Your task to perform on an android device: check storage Image 0: 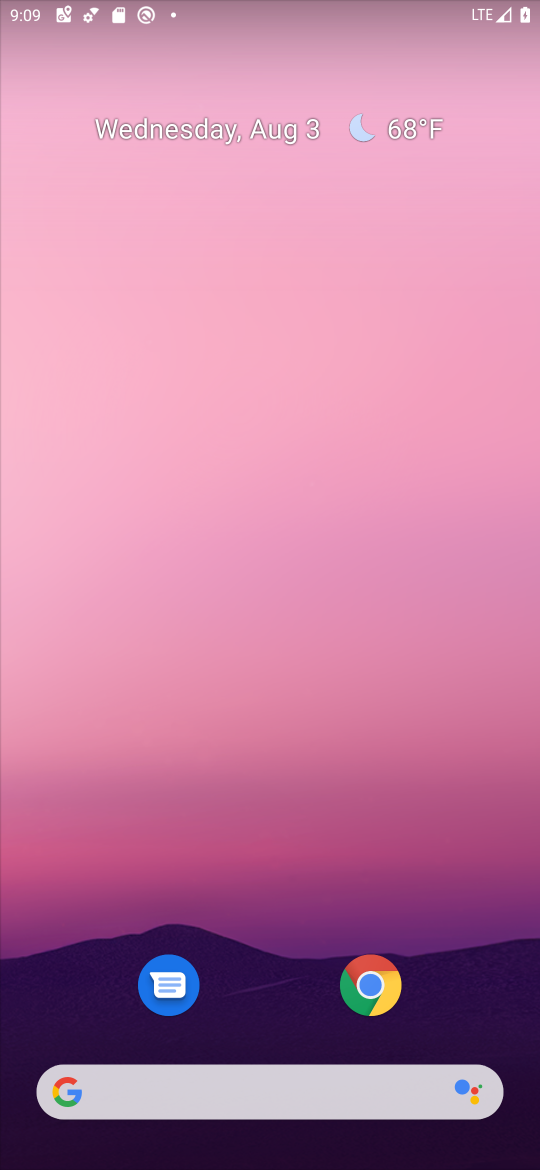
Step 0: drag from (248, 1007) to (286, 324)
Your task to perform on an android device: check storage Image 1: 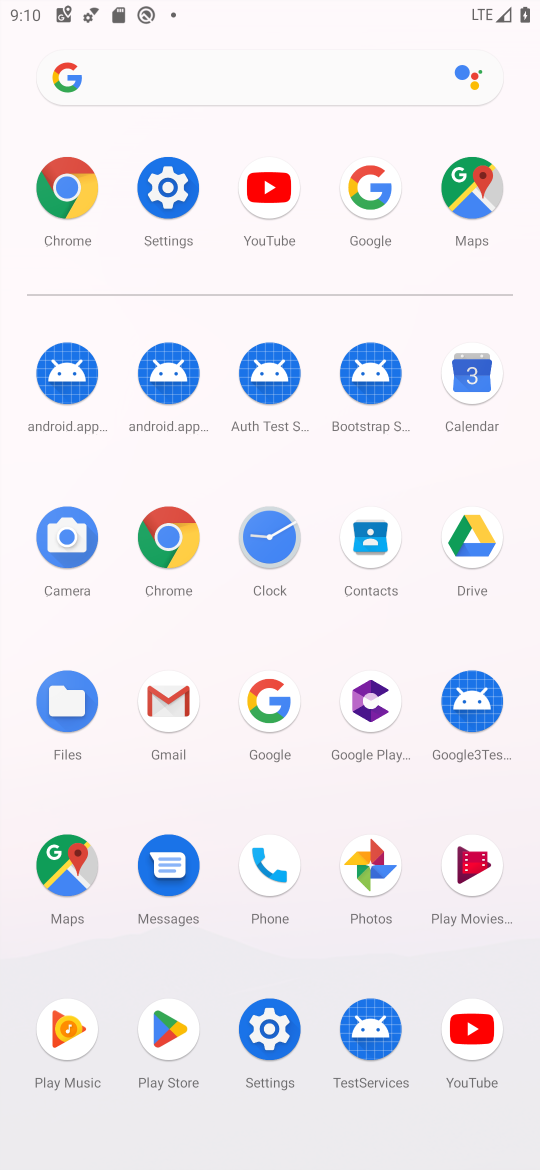
Step 1: click (156, 161)
Your task to perform on an android device: check storage Image 2: 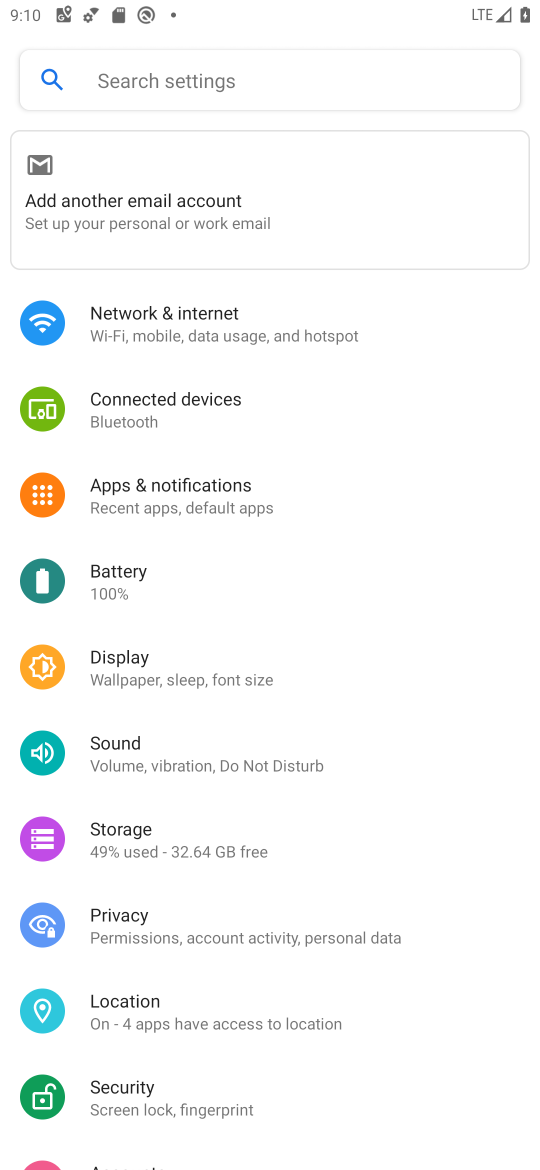
Step 2: drag from (206, 888) to (275, 371)
Your task to perform on an android device: check storage Image 3: 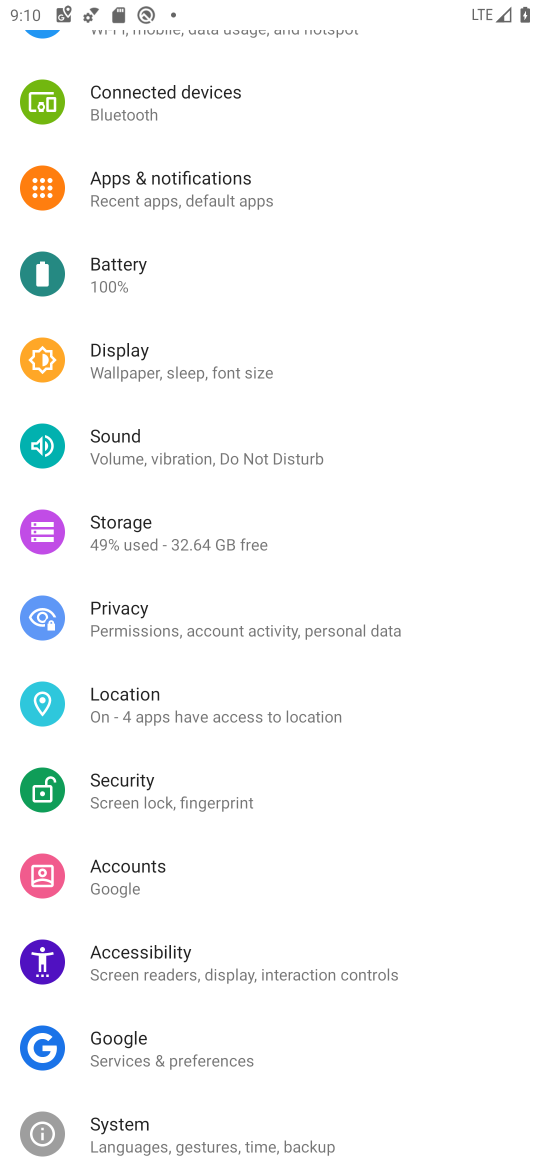
Step 3: click (199, 551)
Your task to perform on an android device: check storage Image 4: 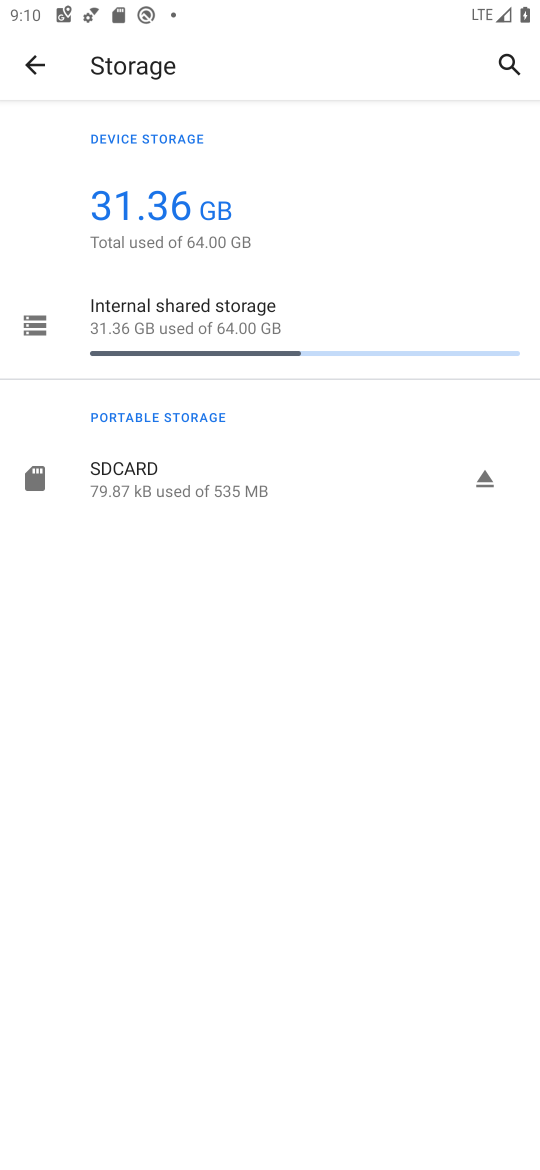
Step 4: click (192, 347)
Your task to perform on an android device: check storage Image 5: 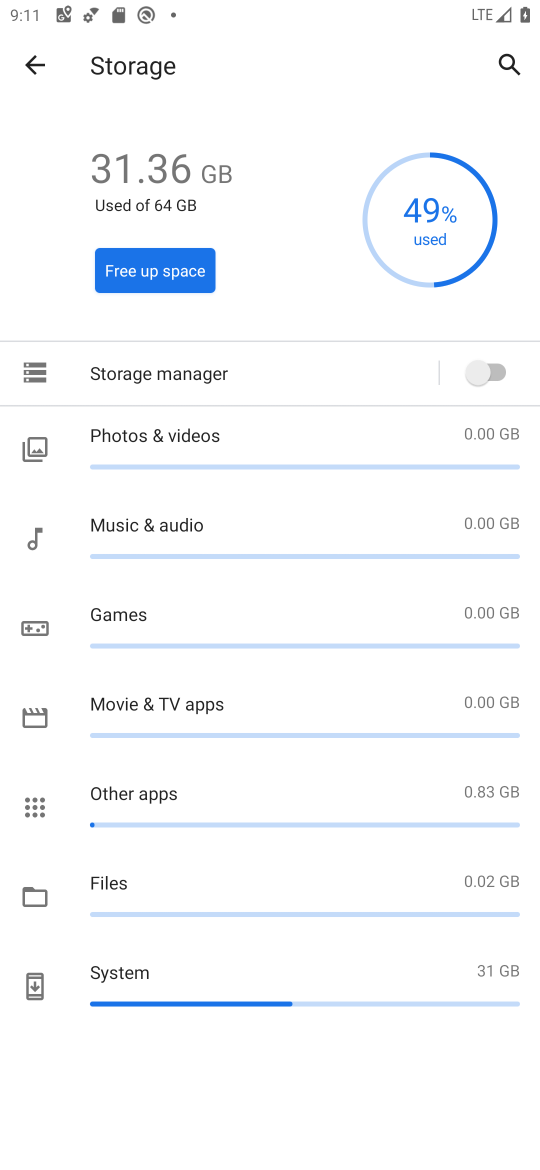
Step 5: task complete